Your task to perform on an android device: Open settings on Google Maps Image 0: 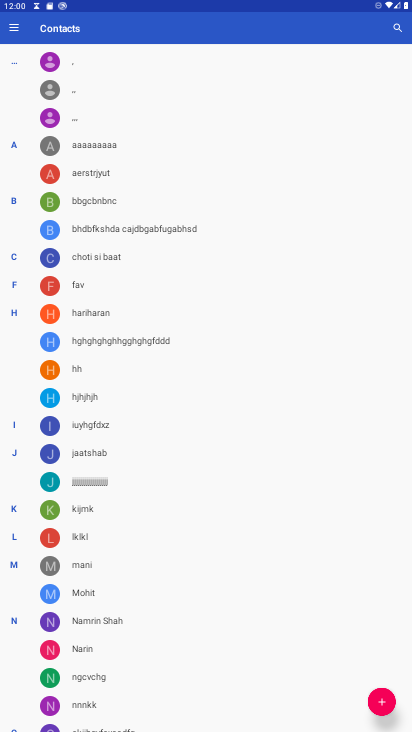
Step 0: press home button
Your task to perform on an android device: Open settings on Google Maps Image 1: 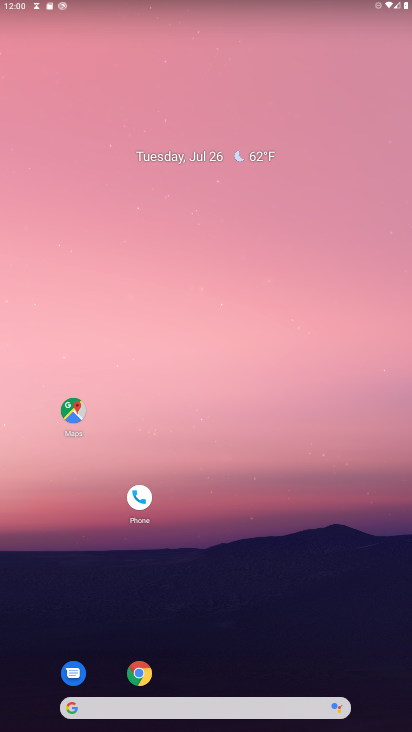
Step 1: click (83, 410)
Your task to perform on an android device: Open settings on Google Maps Image 2: 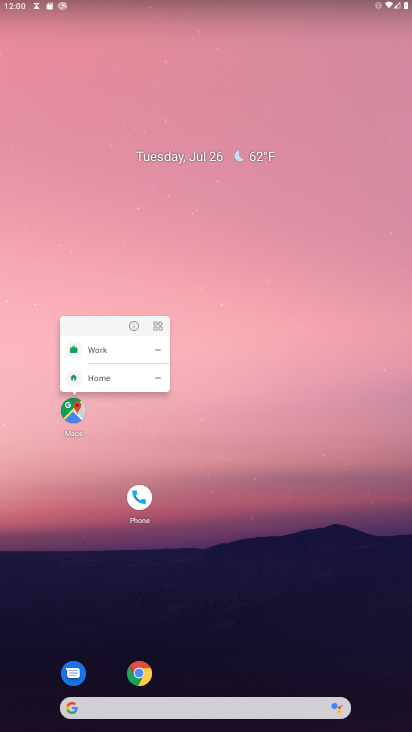
Step 2: click (83, 410)
Your task to perform on an android device: Open settings on Google Maps Image 3: 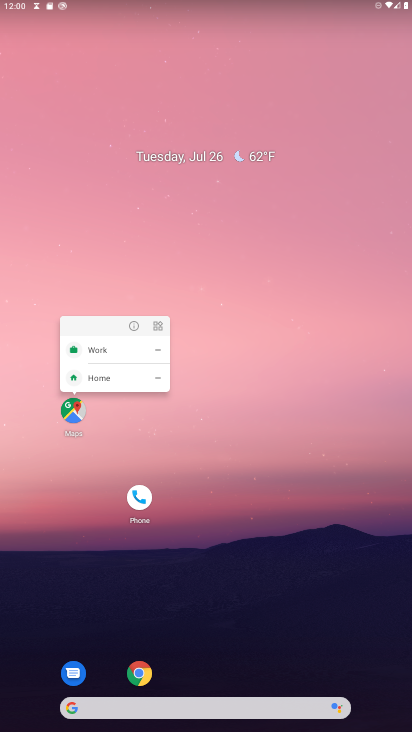
Step 3: click (75, 414)
Your task to perform on an android device: Open settings on Google Maps Image 4: 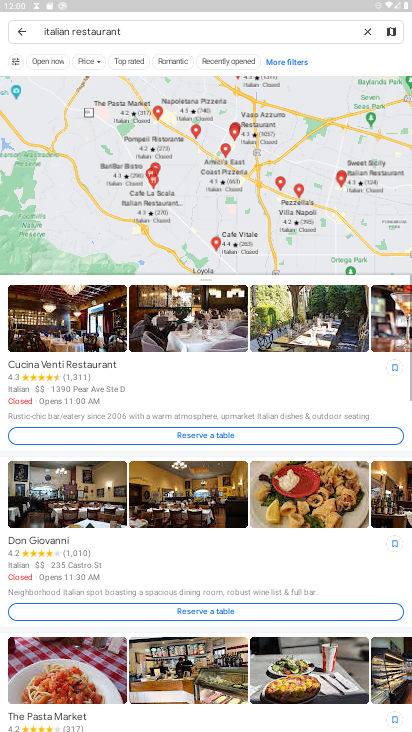
Step 4: click (15, 31)
Your task to perform on an android device: Open settings on Google Maps Image 5: 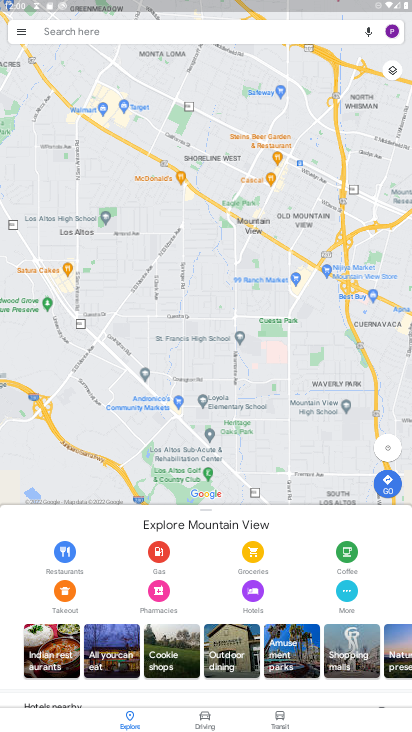
Step 5: click (21, 28)
Your task to perform on an android device: Open settings on Google Maps Image 6: 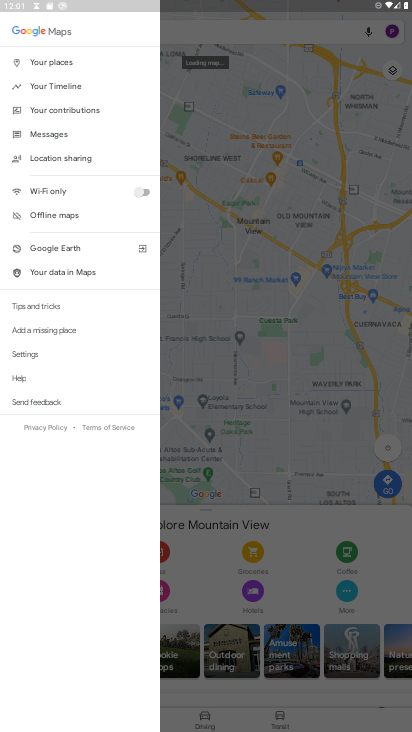
Step 6: click (26, 349)
Your task to perform on an android device: Open settings on Google Maps Image 7: 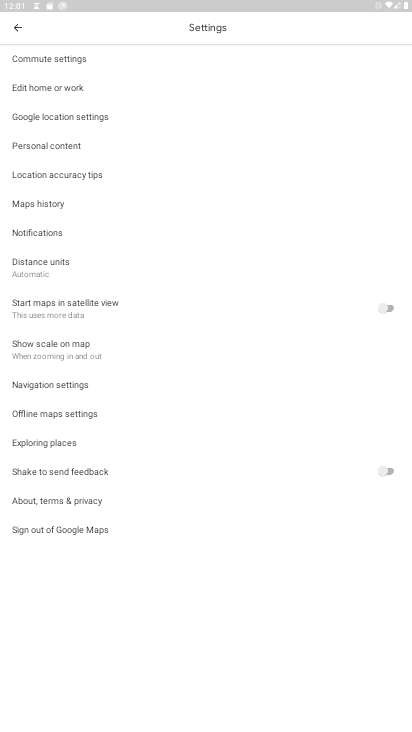
Step 7: task complete